Your task to perform on an android device: Clear the cart on target. Add "usb-c to usb-a" to the cart on target Image 0: 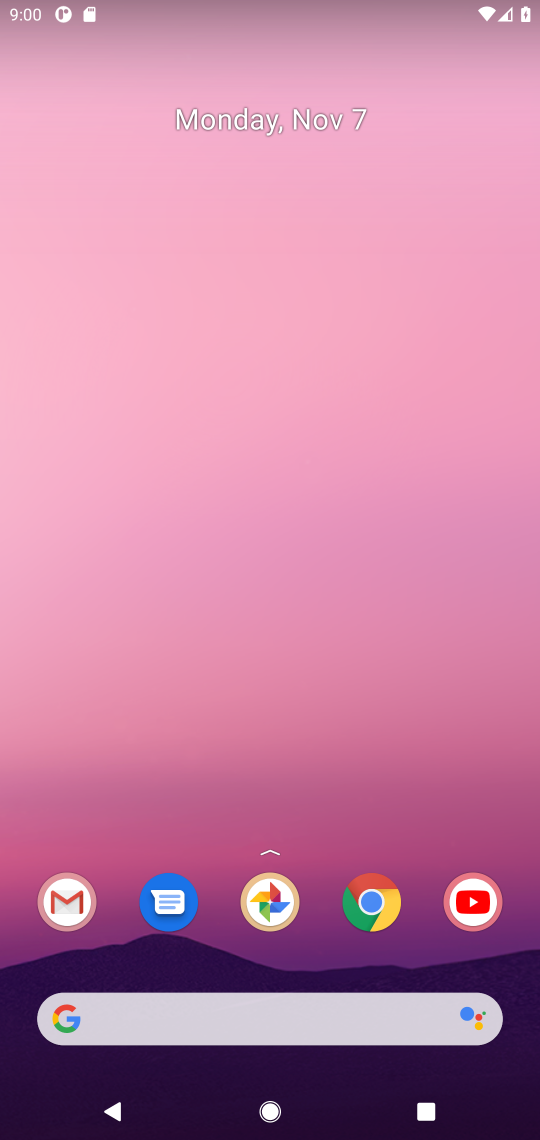
Step 0: click (375, 903)
Your task to perform on an android device: Clear the cart on target. Add "usb-c to usb-a" to the cart on target Image 1: 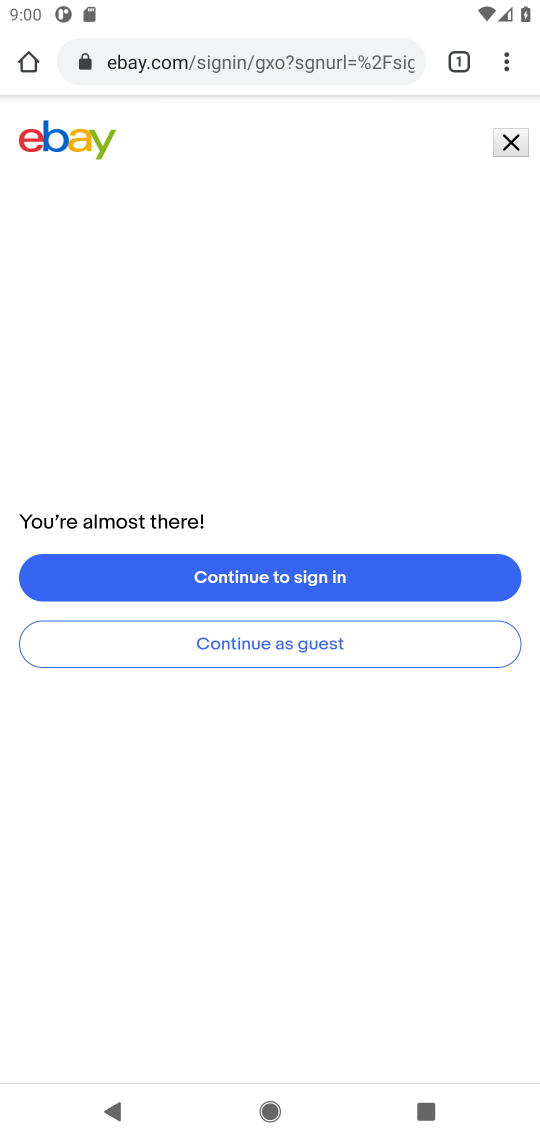
Step 1: click (244, 68)
Your task to perform on an android device: Clear the cart on target. Add "usb-c to usb-a" to the cart on target Image 2: 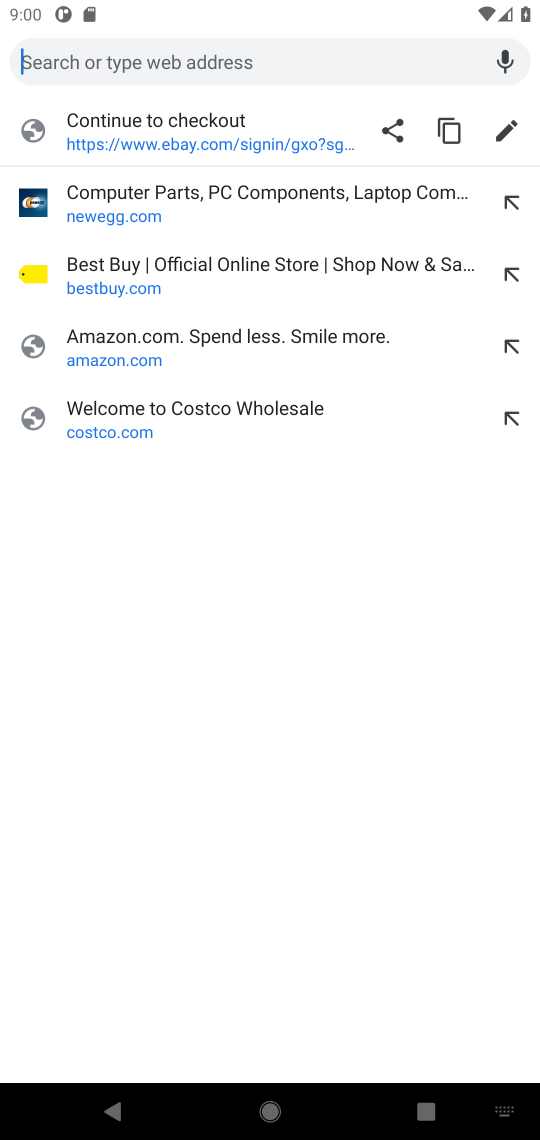
Step 2: type "target.com"
Your task to perform on an android device: Clear the cart on target. Add "usb-c to usb-a" to the cart on target Image 3: 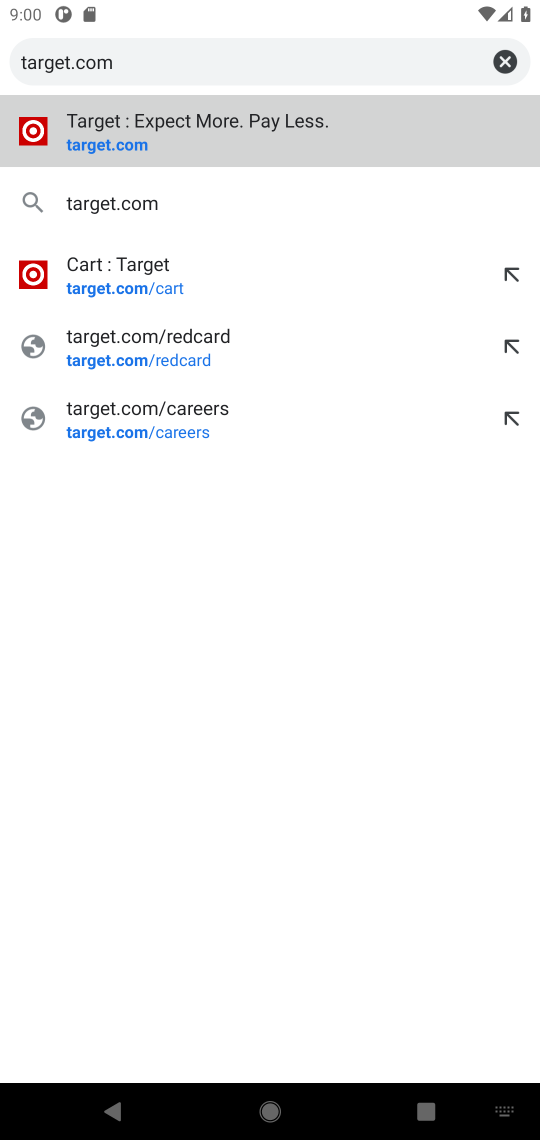
Step 3: click (92, 136)
Your task to perform on an android device: Clear the cart on target. Add "usb-c to usb-a" to the cart on target Image 4: 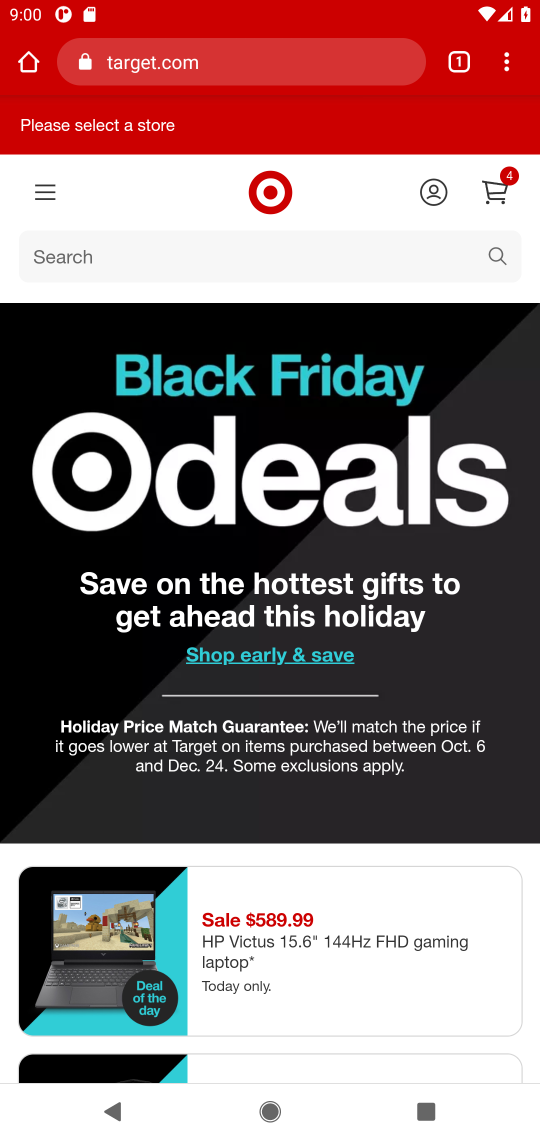
Step 4: click (485, 178)
Your task to perform on an android device: Clear the cart on target. Add "usb-c to usb-a" to the cart on target Image 5: 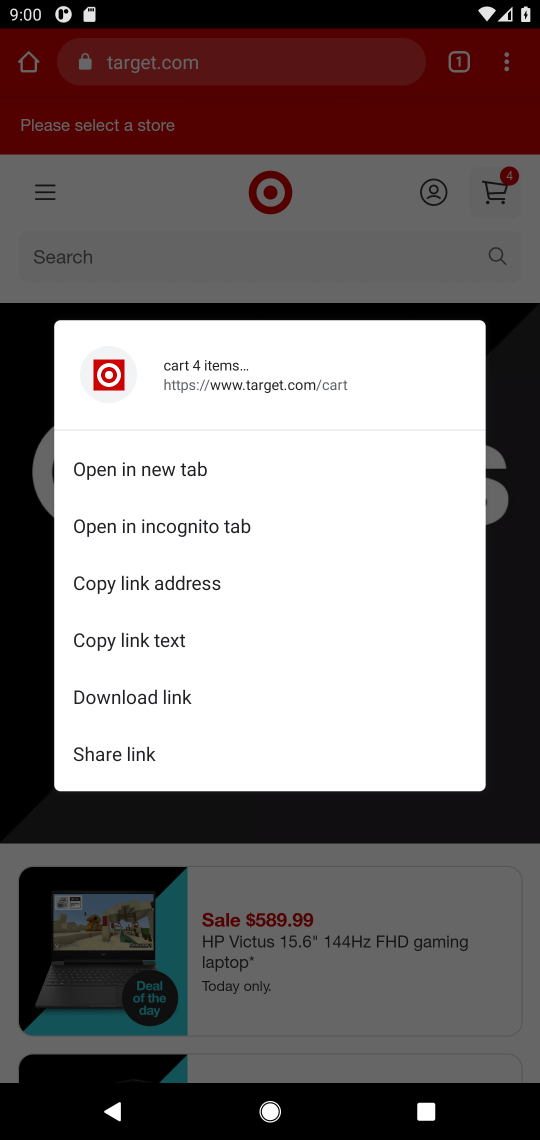
Step 5: click (494, 196)
Your task to perform on an android device: Clear the cart on target. Add "usb-c to usb-a" to the cart on target Image 6: 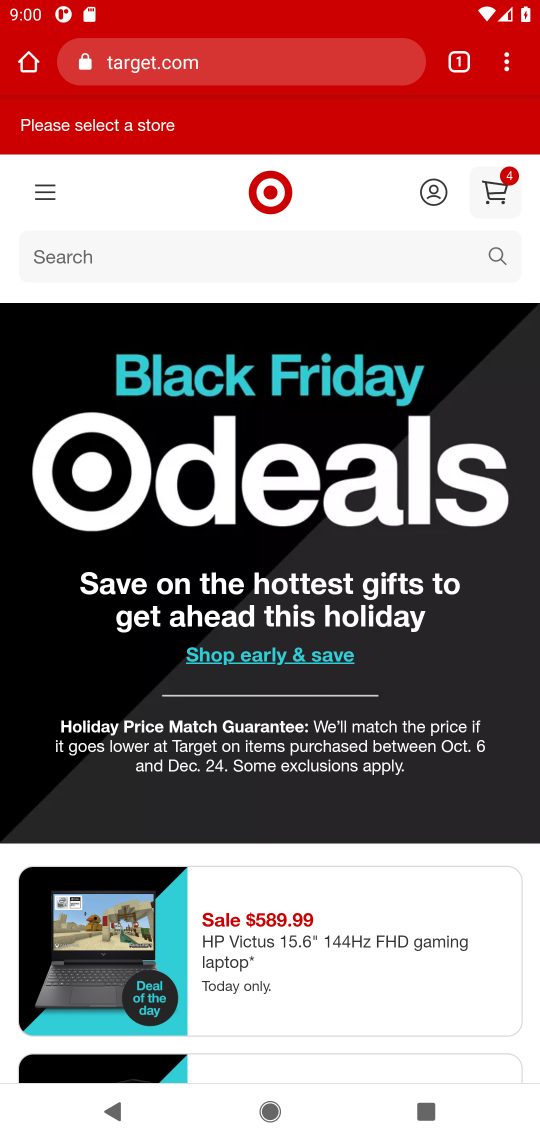
Step 6: click (486, 181)
Your task to perform on an android device: Clear the cart on target. Add "usb-c to usb-a" to the cart on target Image 7: 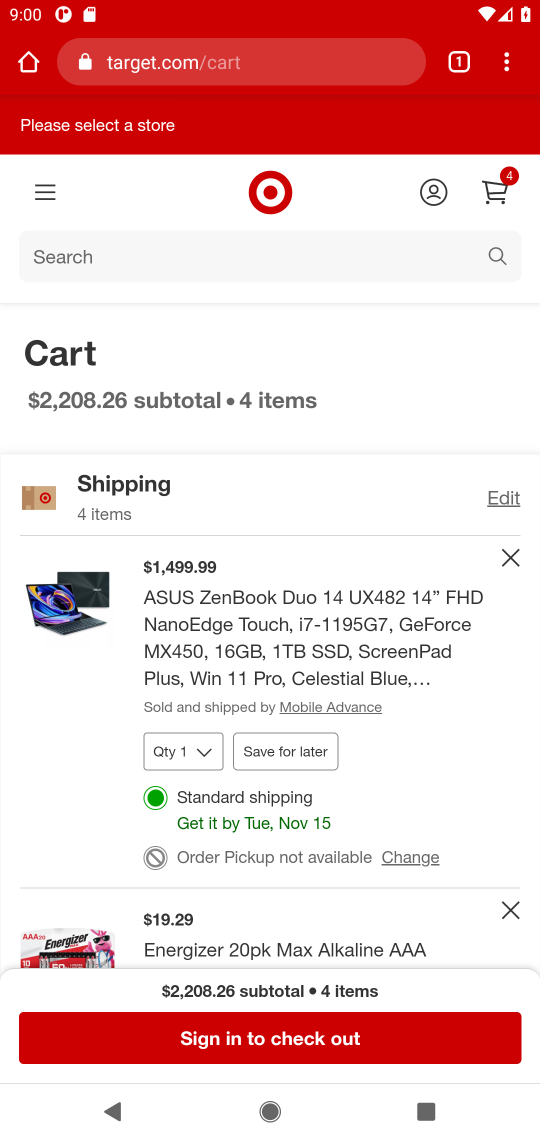
Step 7: click (509, 558)
Your task to perform on an android device: Clear the cart on target. Add "usb-c to usb-a" to the cart on target Image 8: 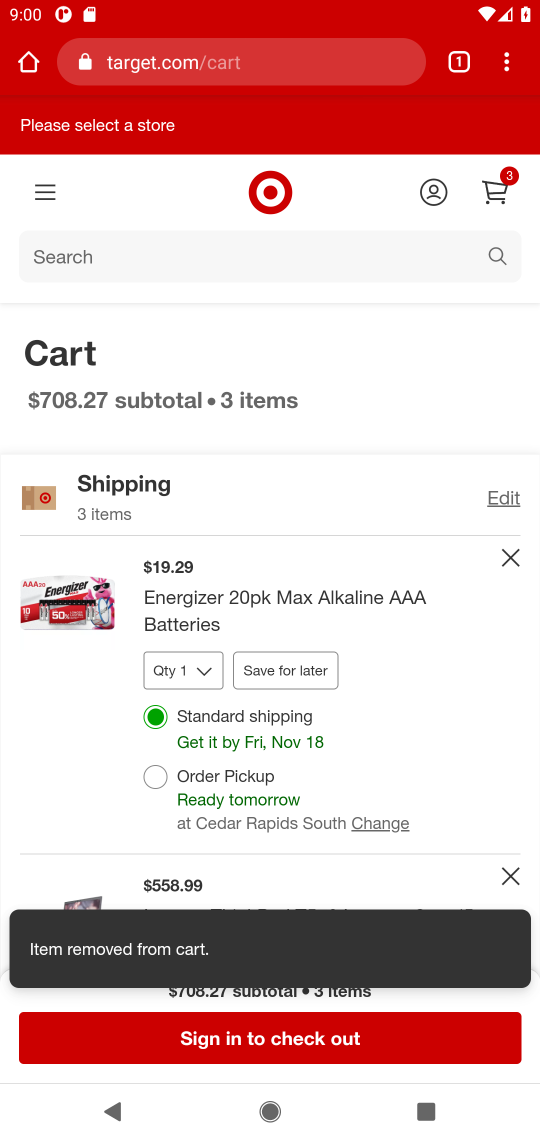
Step 8: click (509, 558)
Your task to perform on an android device: Clear the cart on target. Add "usb-c to usb-a" to the cart on target Image 9: 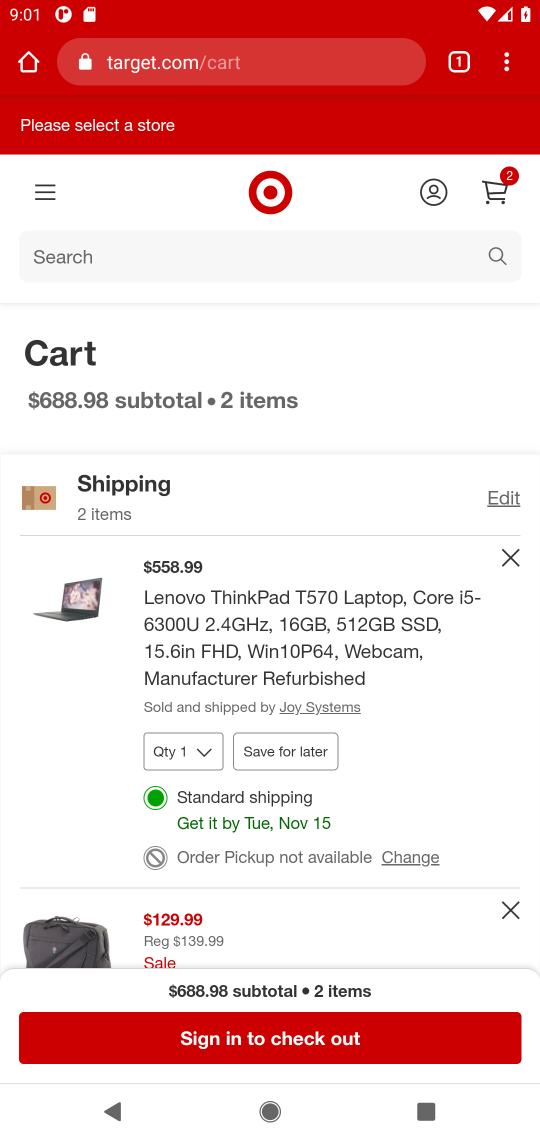
Step 9: click (509, 558)
Your task to perform on an android device: Clear the cart on target. Add "usb-c to usb-a" to the cart on target Image 10: 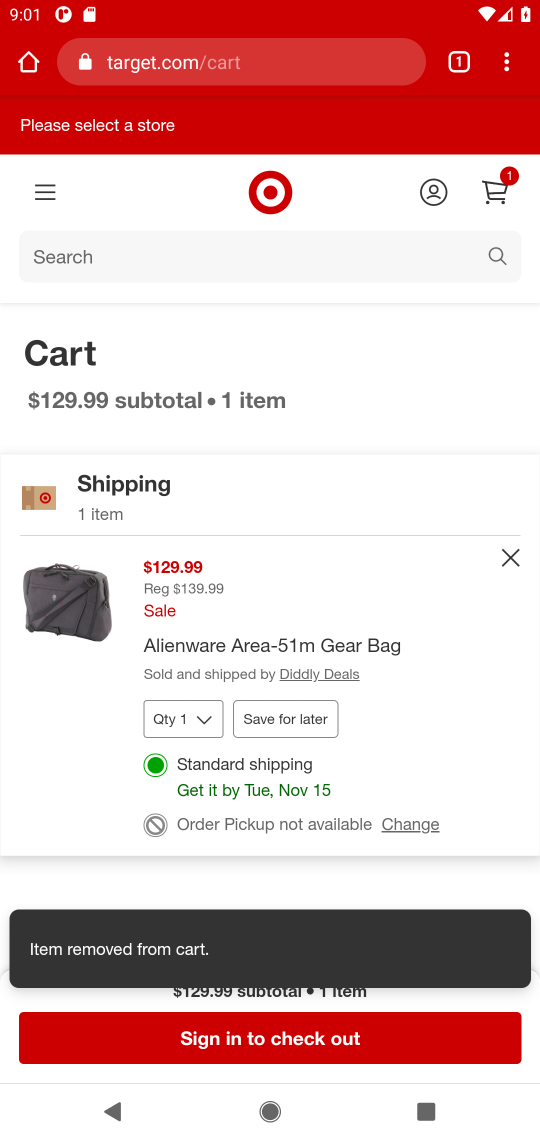
Step 10: click (509, 558)
Your task to perform on an android device: Clear the cart on target. Add "usb-c to usb-a" to the cart on target Image 11: 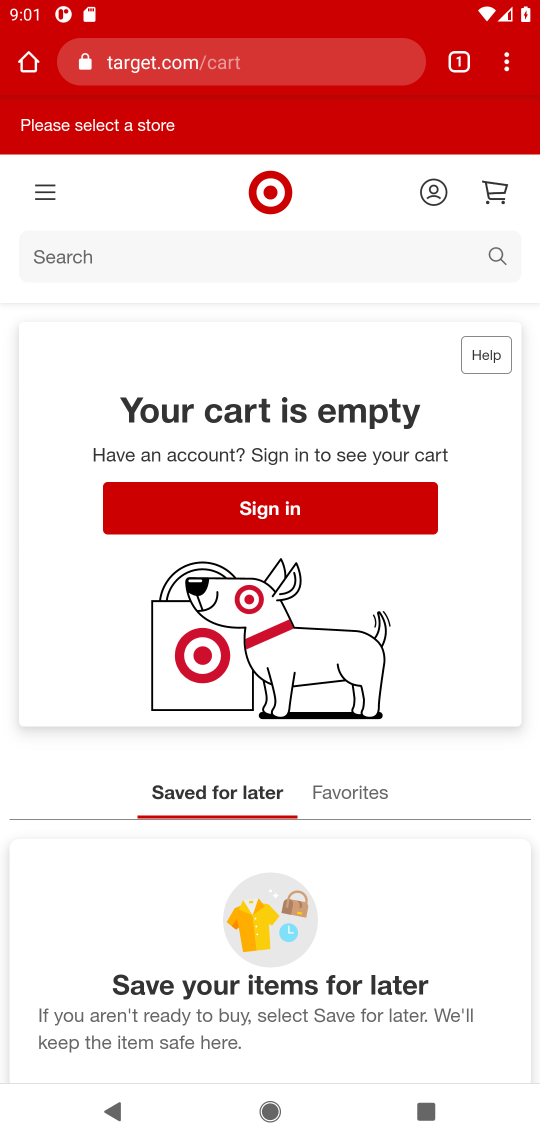
Step 11: click (488, 257)
Your task to perform on an android device: Clear the cart on target. Add "usb-c to usb-a" to the cart on target Image 12: 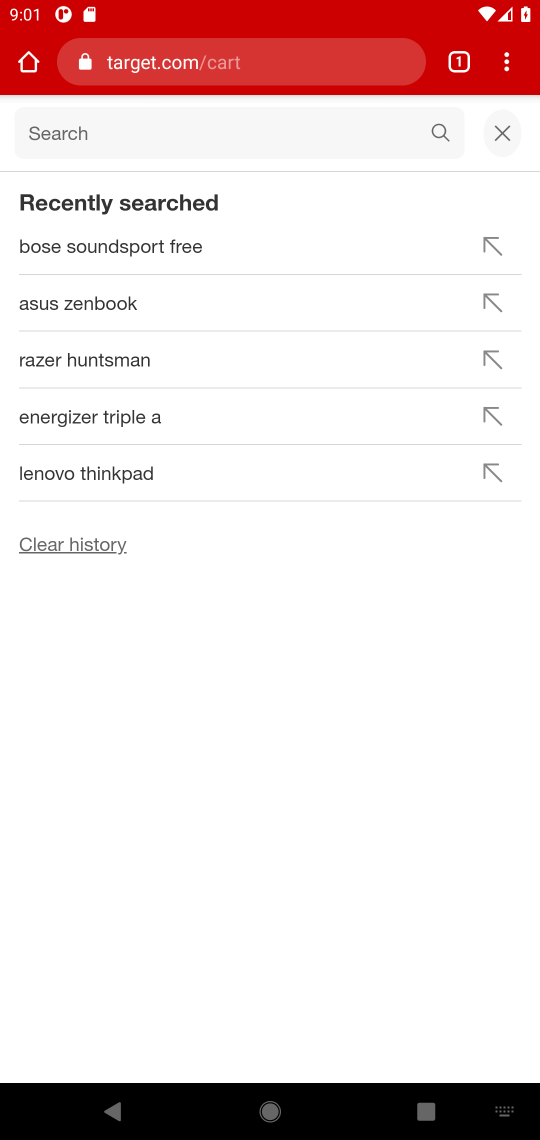
Step 12: type "usb-c to usb-a"
Your task to perform on an android device: Clear the cart on target. Add "usb-c to usb-a" to the cart on target Image 13: 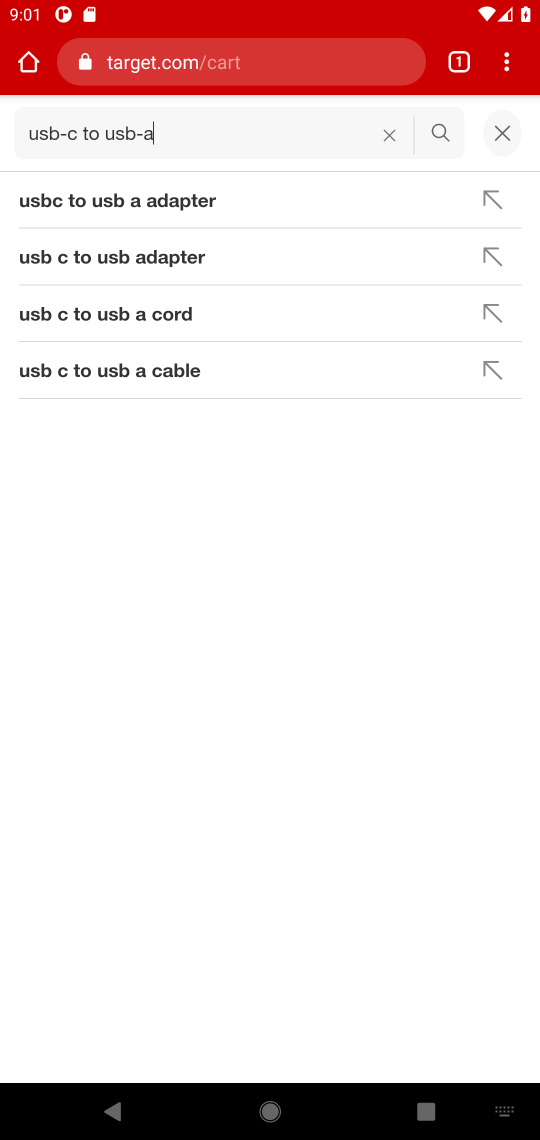
Step 13: click (443, 132)
Your task to perform on an android device: Clear the cart on target. Add "usb-c to usb-a" to the cart on target Image 14: 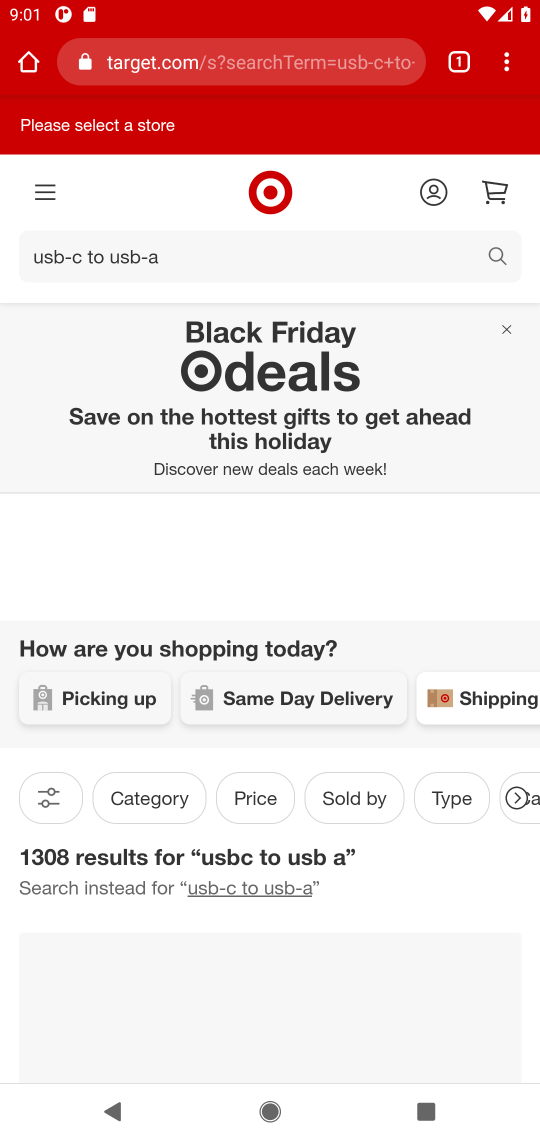
Step 14: drag from (325, 852) to (292, 392)
Your task to perform on an android device: Clear the cart on target. Add "usb-c to usb-a" to the cart on target Image 15: 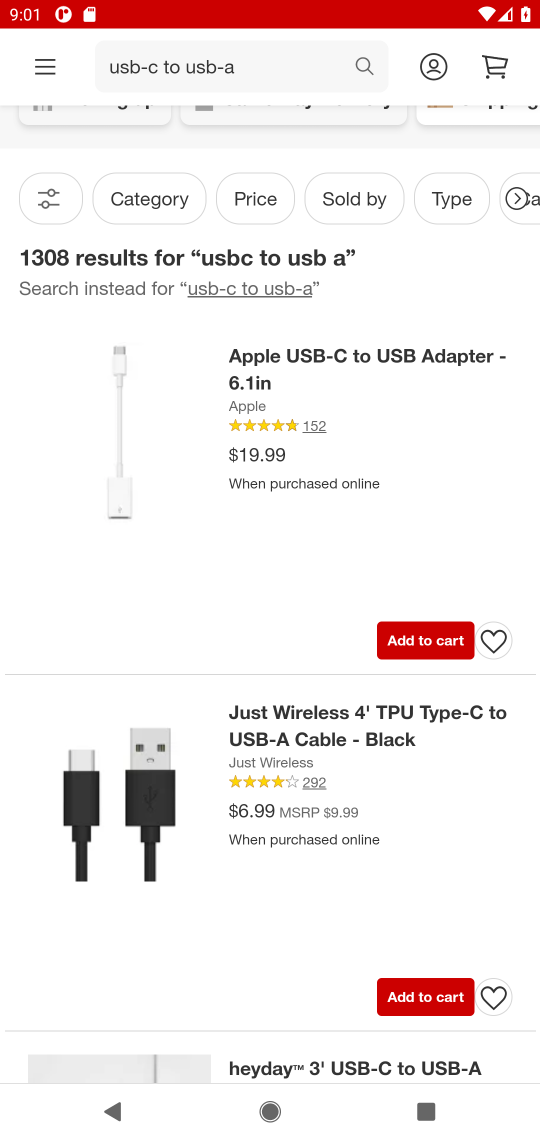
Step 15: click (163, 438)
Your task to perform on an android device: Clear the cart on target. Add "usb-c to usb-a" to the cart on target Image 16: 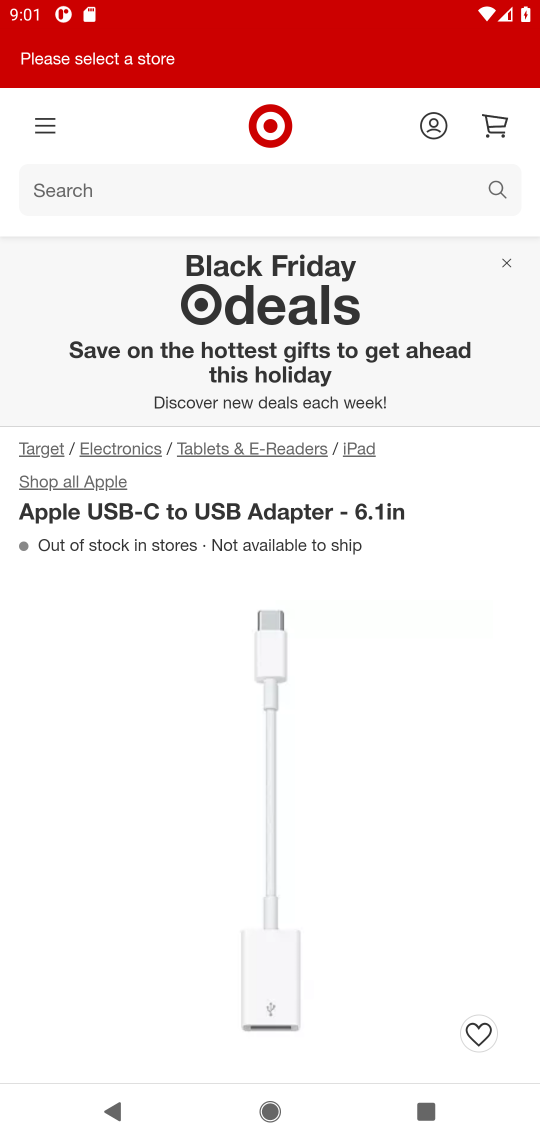
Step 16: drag from (326, 776) to (296, 359)
Your task to perform on an android device: Clear the cart on target. Add "usb-c to usb-a" to the cart on target Image 17: 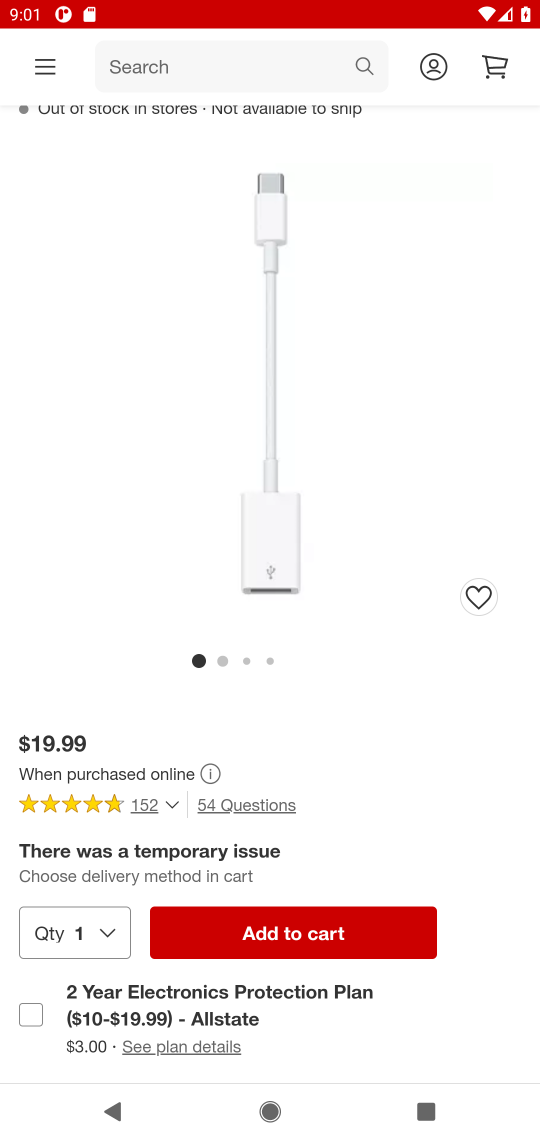
Step 17: click (273, 913)
Your task to perform on an android device: Clear the cart on target. Add "usb-c to usb-a" to the cart on target Image 18: 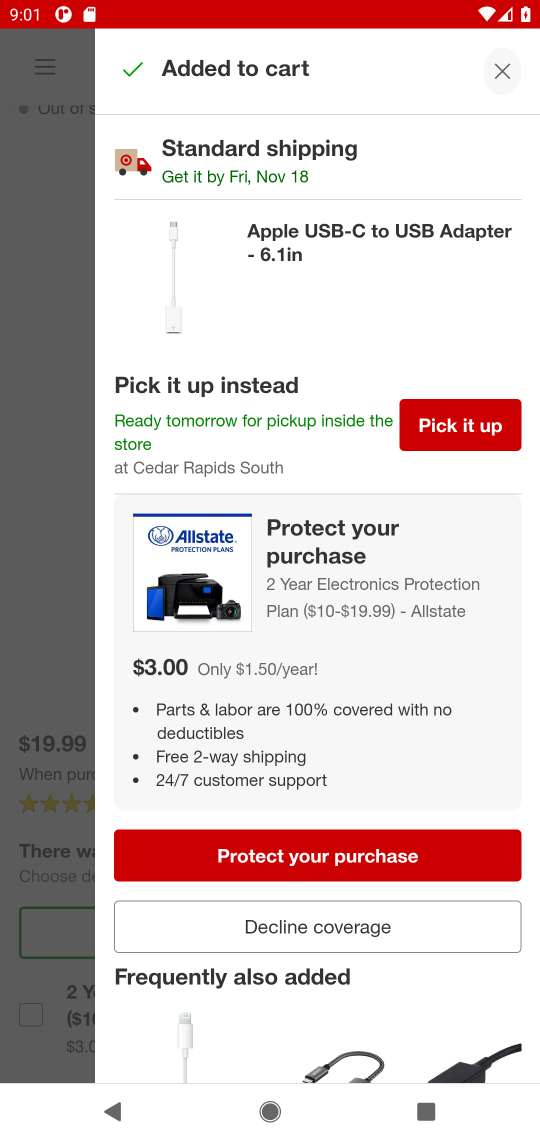
Step 18: task complete